Your task to perform on an android device: turn off airplane mode Image 0: 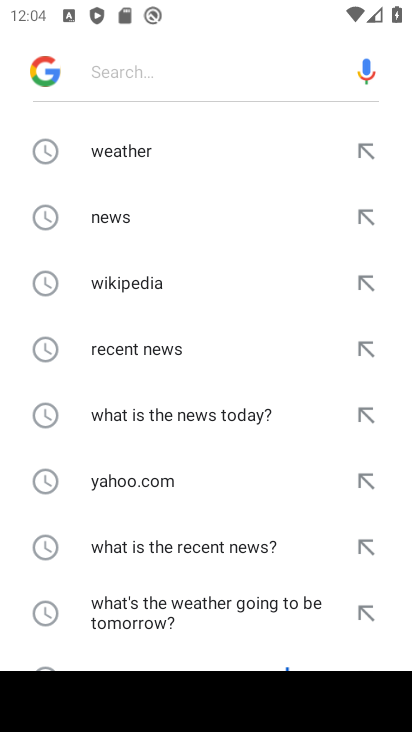
Step 0: press home button
Your task to perform on an android device: turn off airplane mode Image 1: 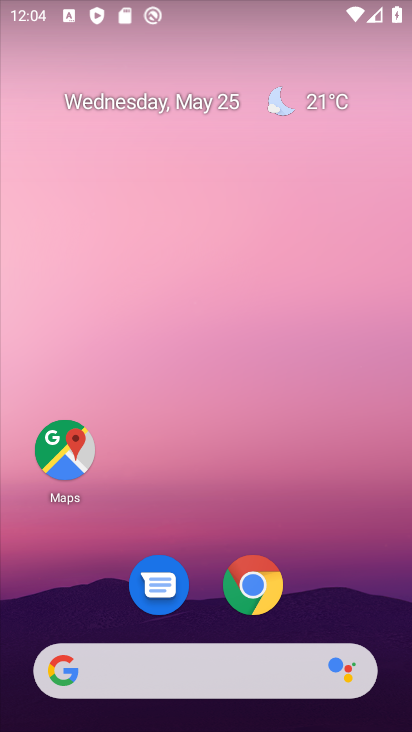
Step 1: drag from (246, 452) to (296, 0)
Your task to perform on an android device: turn off airplane mode Image 2: 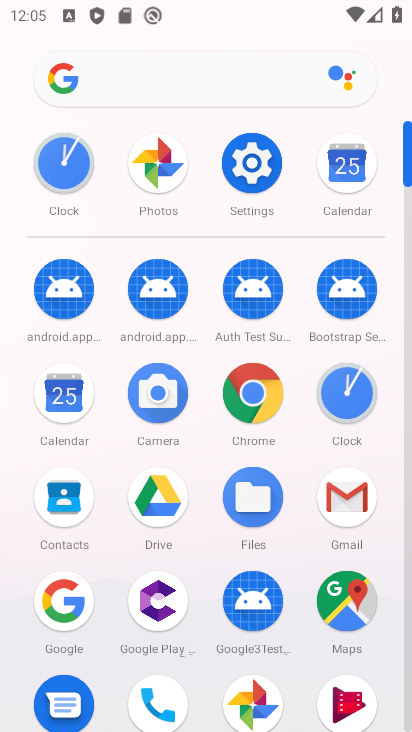
Step 2: click (250, 161)
Your task to perform on an android device: turn off airplane mode Image 3: 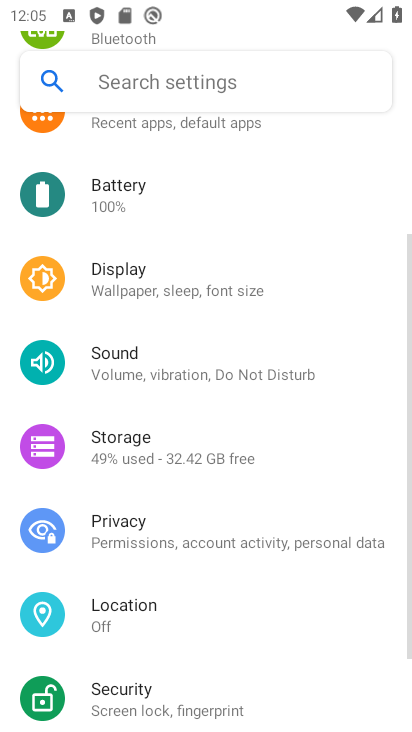
Step 3: drag from (242, 185) to (211, 556)
Your task to perform on an android device: turn off airplane mode Image 4: 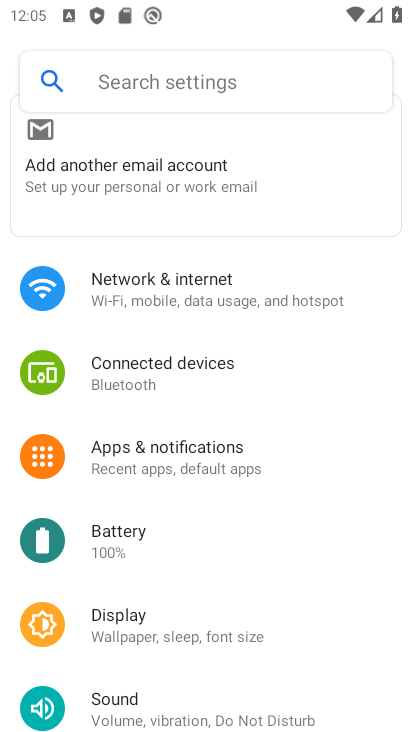
Step 4: click (252, 304)
Your task to perform on an android device: turn off airplane mode Image 5: 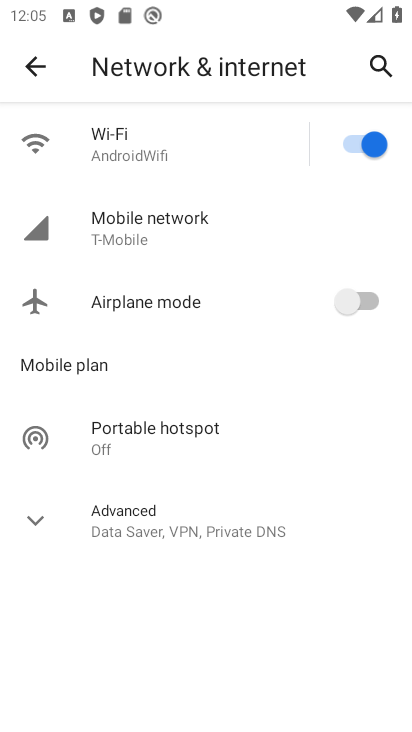
Step 5: task complete